Your task to perform on an android device: clear history in the chrome app Image 0: 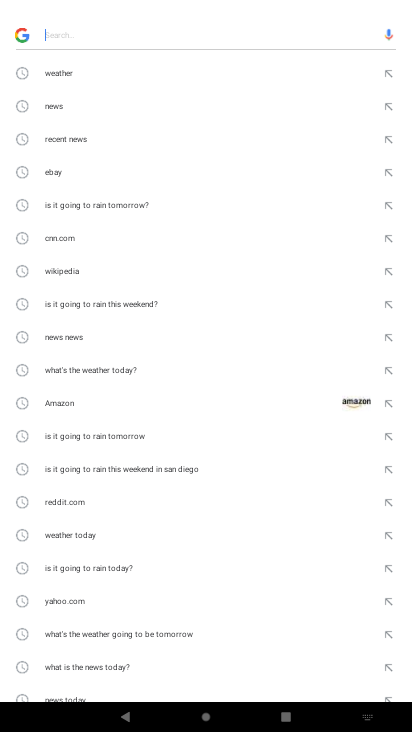
Step 0: press home button
Your task to perform on an android device: clear history in the chrome app Image 1: 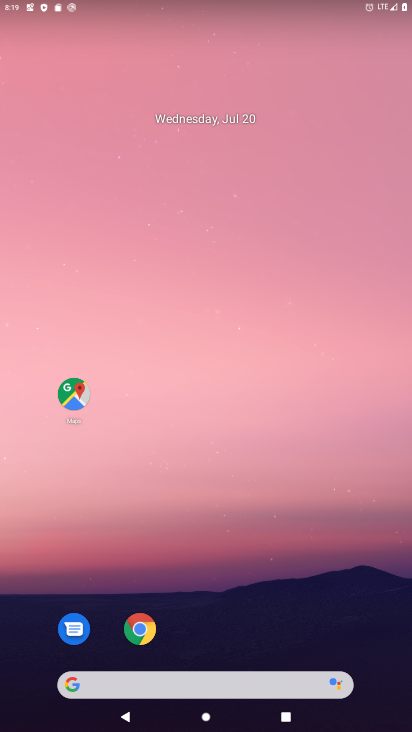
Step 1: click (139, 625)
Your task to perform on an android device: clear history in the chrome app Image 2: 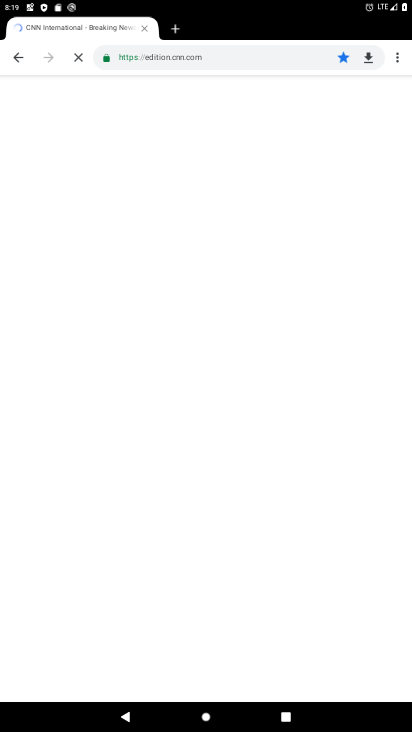
Step 2: click (393, 55)
Your task to perform on an android device: clear history in the chrome app Image 3: 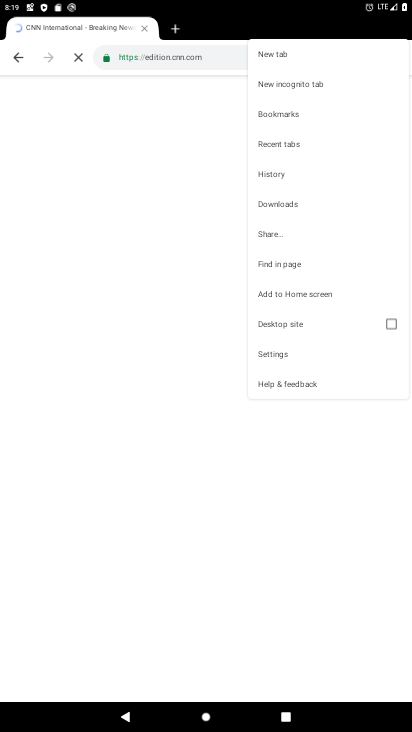
Step 3: click (262, 174)
Your task to perform on an android device: clear history in the chrome app Image 4: 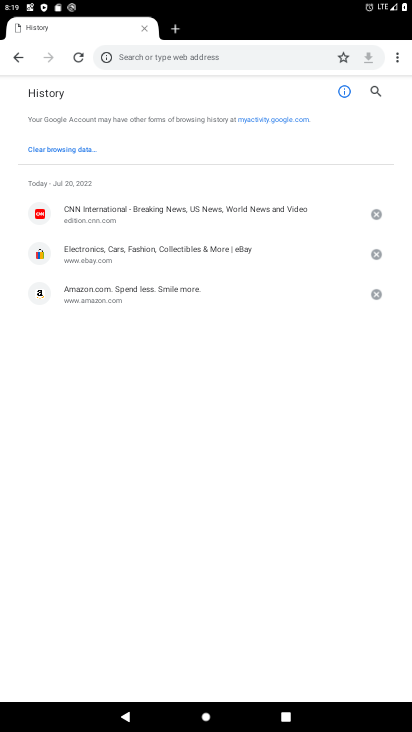
Step 4: click (69, 148)
Your task to perform on an android device: clear history in the chrome app Image 5: 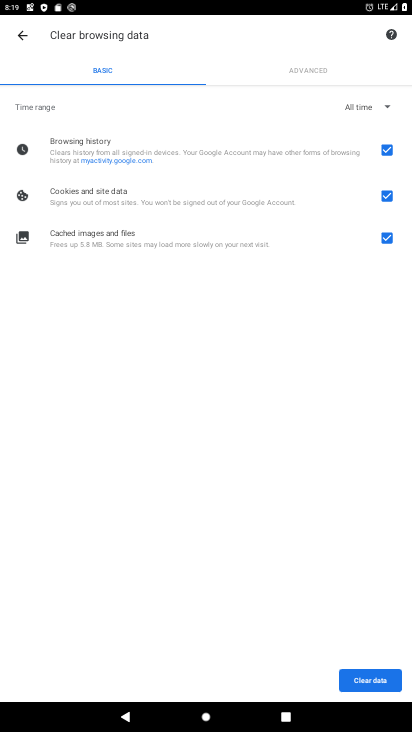
Step 5: click (375, 680)
Your task to perform on an android device: clear history in the chrome app Image 6: 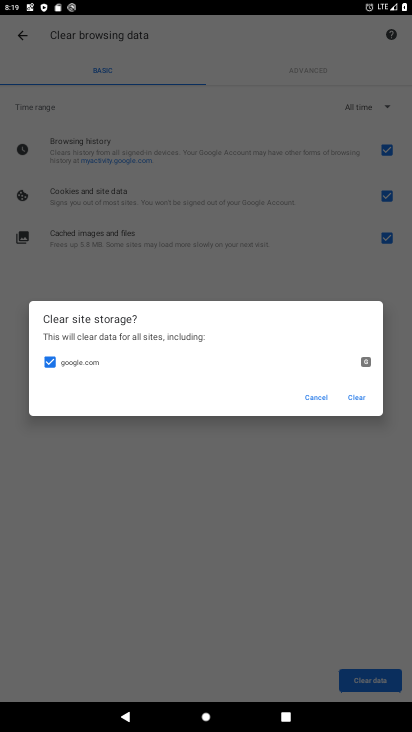
Step 6: click (354, 392)
Your task to perform on an android device: clear history in the chrome app Image 7: 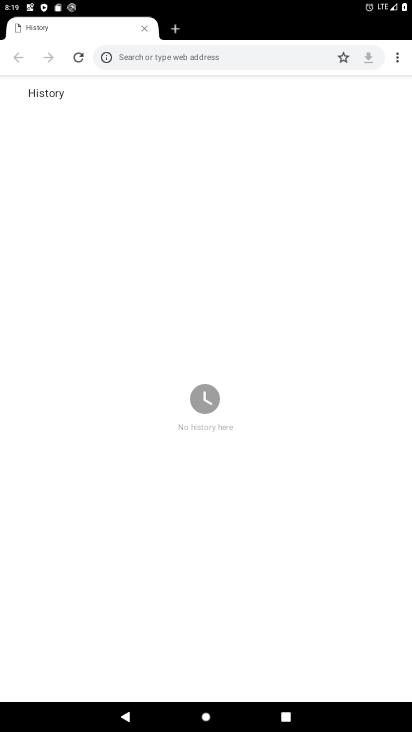
Step 7: task complete